Your task to perform on an android device: Search for Mexican restaurants on Maps Image 0: 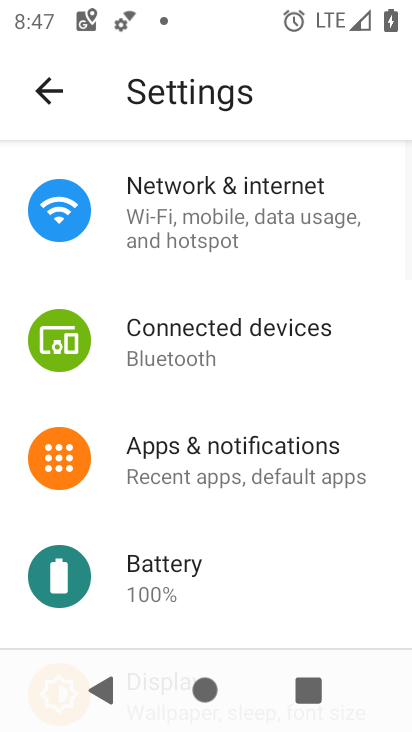
Step 0: press home button
Your task to perform on an android device: Search for Mexican restaurants on Maps Image 1: 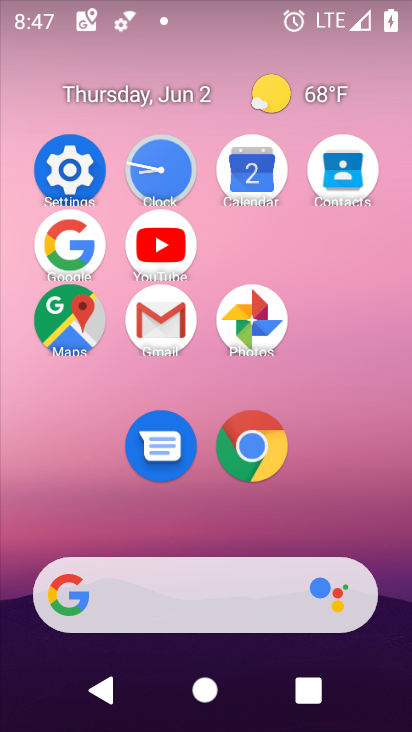
Step 1: click (80, 323)
Your task to perform on an android device: Search for Mexican restaurants on Maps Image 2: 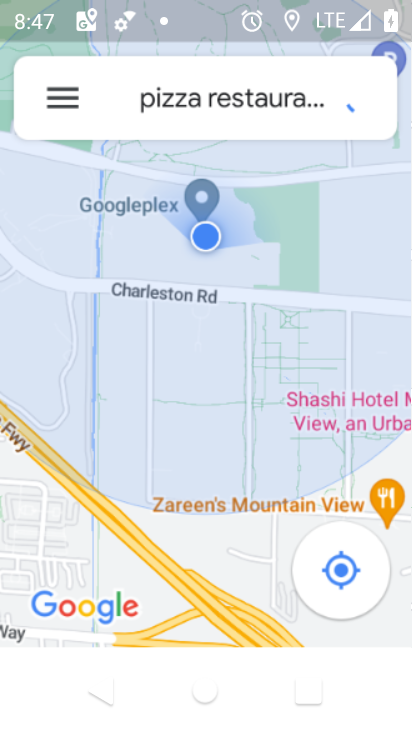
Step 2: click (268, 95)
Your task to perform on an android device: Search for Mexican restaurants on Maps Image 3: 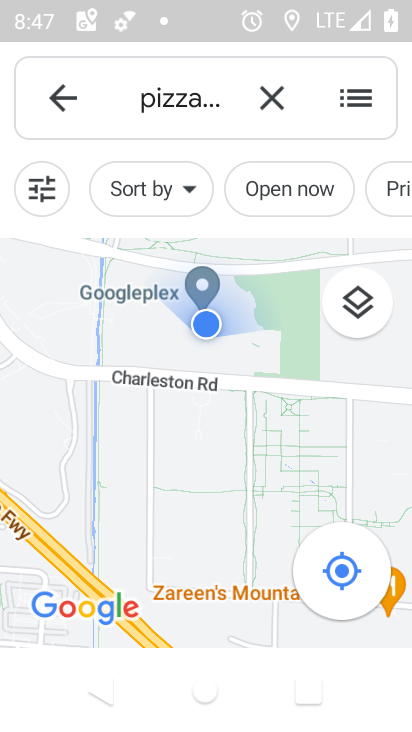
Step 3: click (268, 95)
Your task to perform on an android device: Search for Mexican restaurants on Maps Image 4: 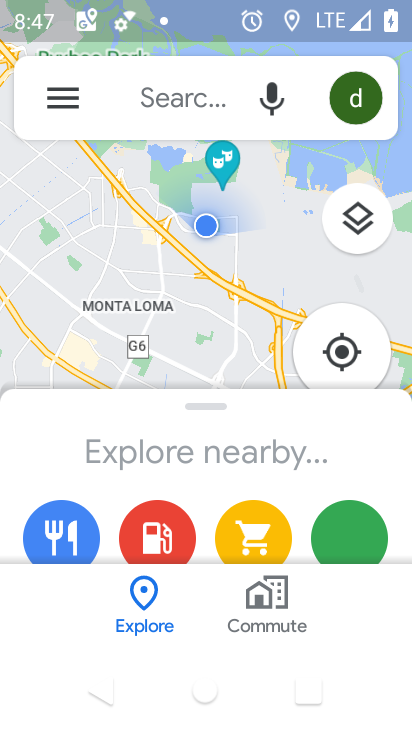
Step 4: click (164, 94)
Your task to perform on an android device: Search for Mexican restaurants on Maps Image 5: 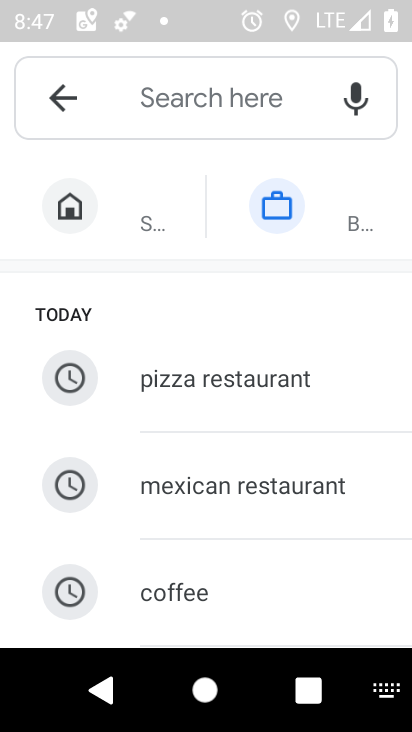
Step 5: click (226, 487)
Your task to perform on an android device: Search for Mexican restaurants on Maps Image 6: 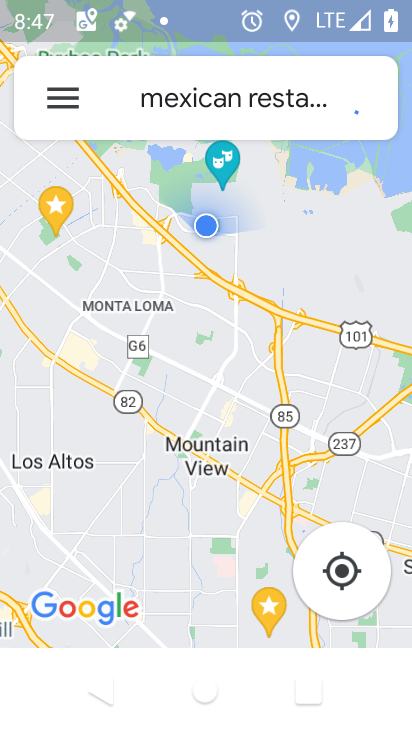
Step 6: task complete